Your task to perform on an android device: Open Google Maps Image 0: 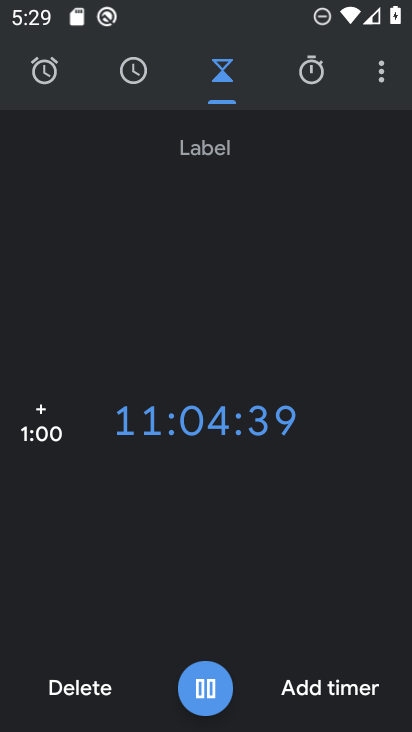
Step 0: press home button
Your task to perform on an android device: Open Google Maps Image 1: 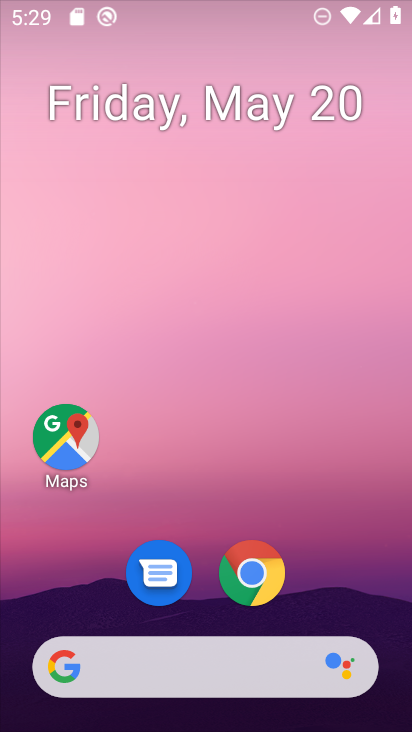
Step 1: click (75, 443)
Your task to perform on an android device: Open Google Maps Image 2: 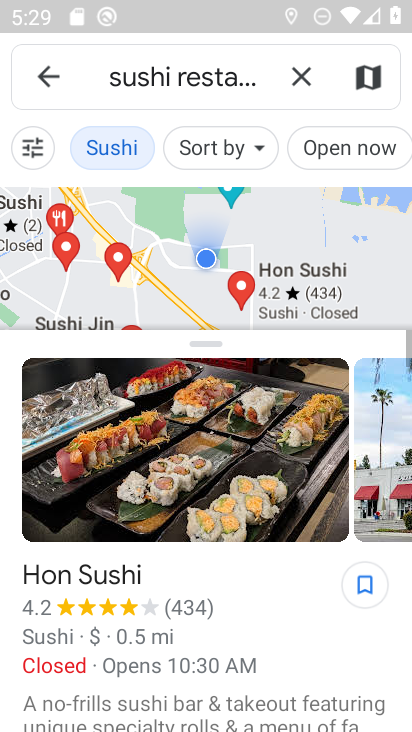
Step 2: task complete